Your task to perform on an android device: Open the Play Movies app and select the watchlist tab. Image 0: 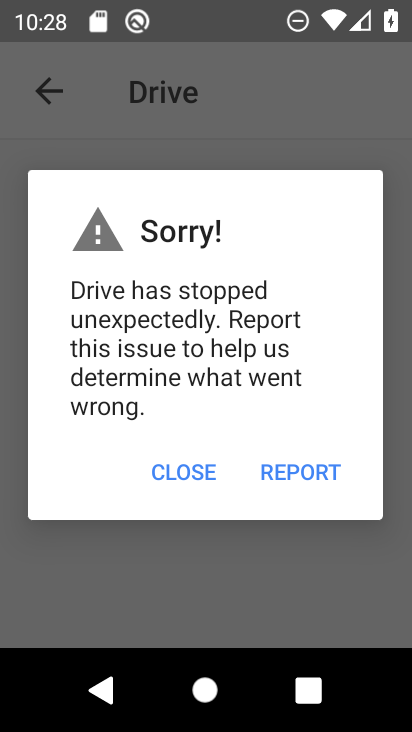
Step 0: press home button
Your task to perform on an android device: Open the Play Movies app and select the watchlist tab. Image 1: 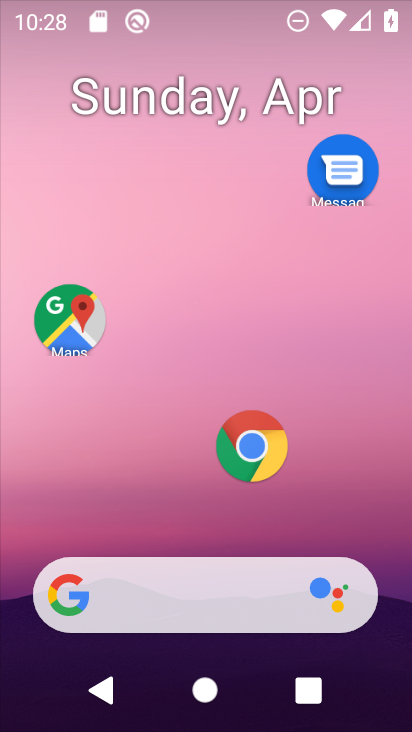
Step 1: drag from (239, 561) to (301, 145)
Your task to perform on an android device: Open the Play Movies app and select the watchlist tab. Image 2: 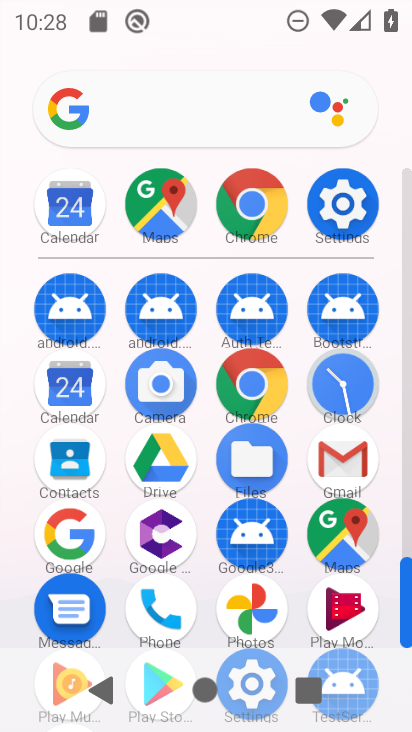
Step 2: click (351, 609)
Your task to perform on an android device: Open the Play Movies app and select the watchlist tab. Image 3: 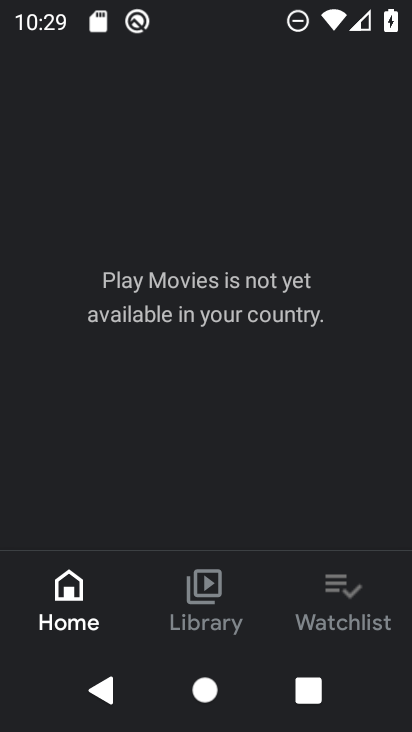
Step 3: click (351, 586)
Your task to perform on an android device: Open the Play Movies app and select the watchlist tab. Image 4: 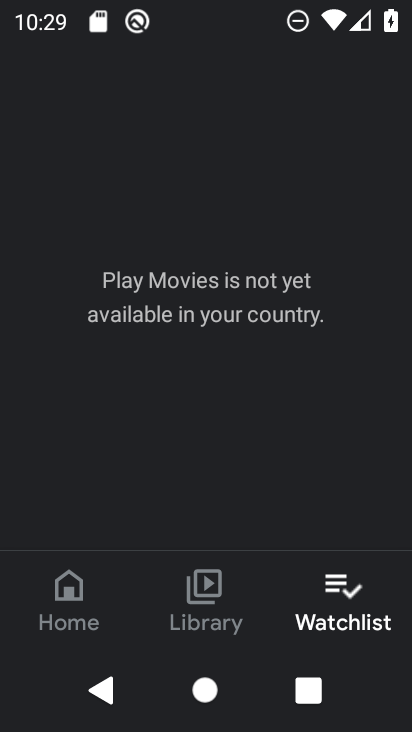
Step 4: task complete